Your task to perform on an android device: What's the weather? Image 0: 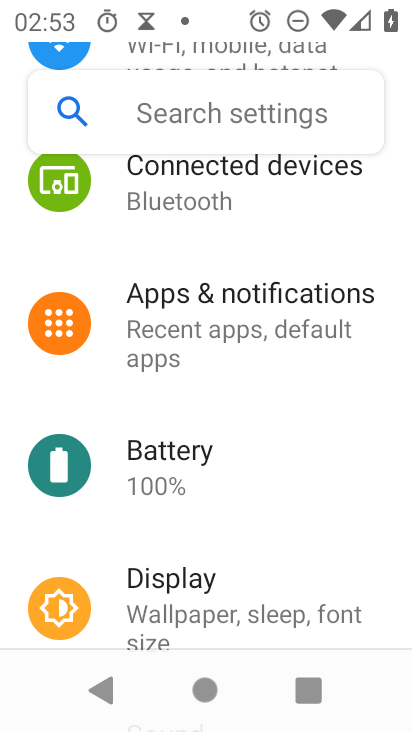
Step 0: press home button
Your task to perform on an android device: What's the weather? Image 1: 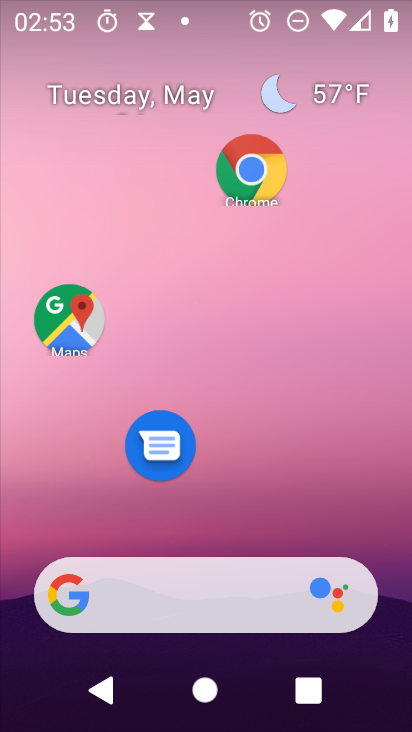
Step 1: click (266, 95)
Your task to perform on an android device: What's the weather? Image 2: 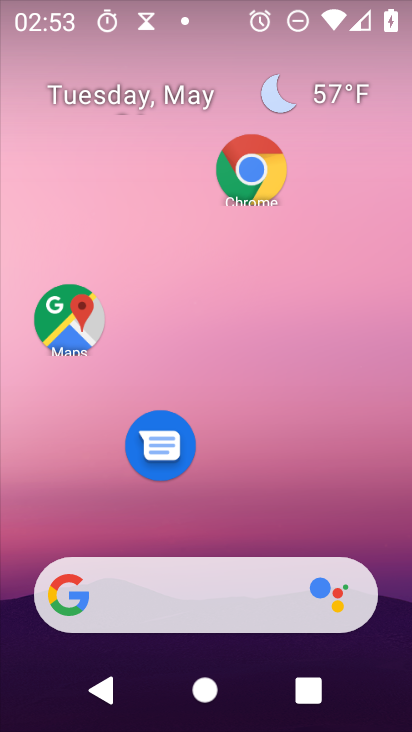
Step 2: drag from (226, 729) to (226, 185)
Your task to perform on an android device: What's the weather? Image 3: 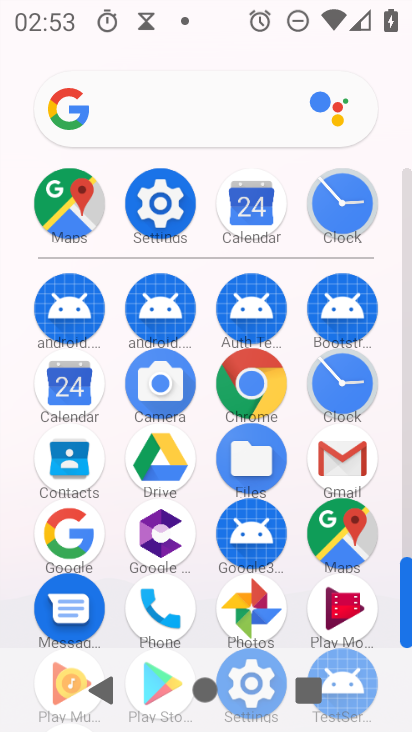
Step 3: click (73, 537)
Your task to perform on an android device: What's the weather? Image 4: 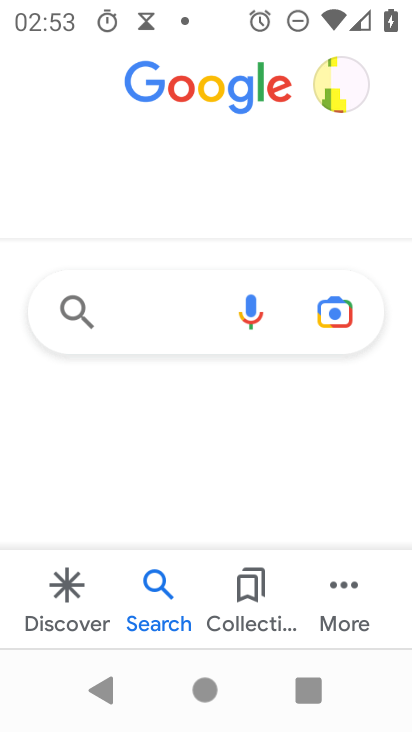
Step 4: click (162, 316)
Your task to perform on an android device: What's the weather? Image 5: 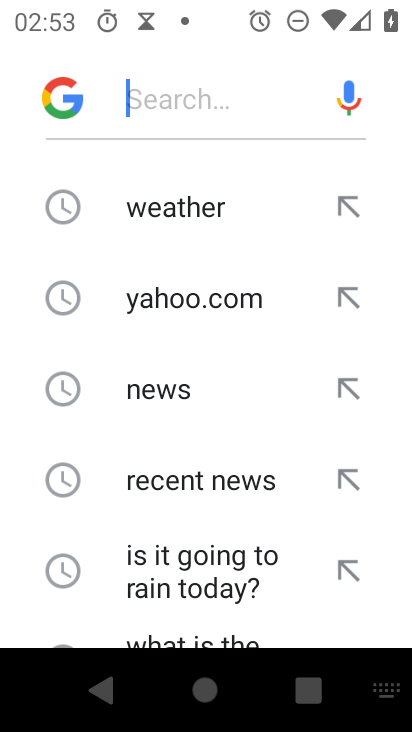
Step 5: click (190, 201)
Your task to perform on an android device: What's the weather? Image 6: 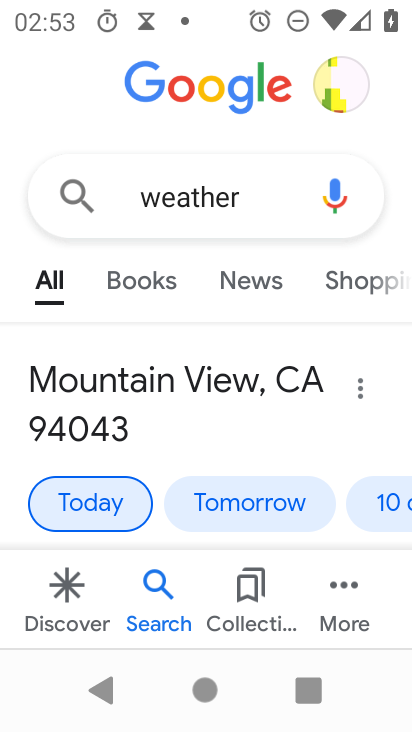
Step 6: click (70, 503)
Your task to perform on an android device: What's the weather? Image 7: 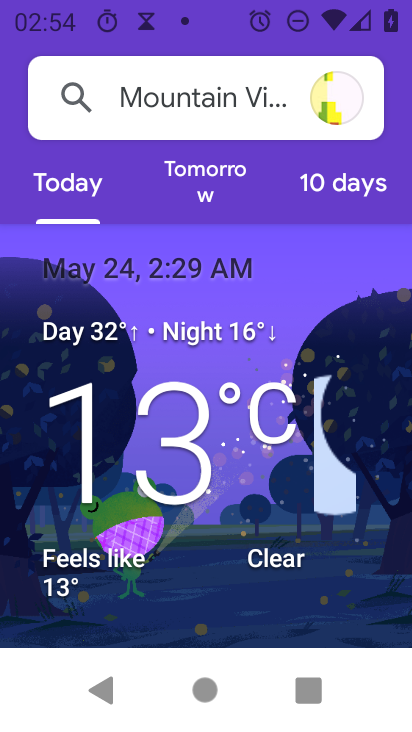
Step 7: task complete